Your task to perform on an android device: set the stopwatch Image 0: 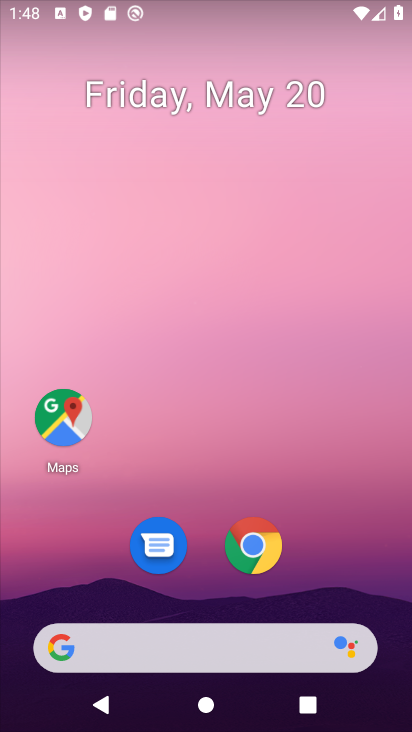
Step 0: drag from (286, 582) to (368, 22)
Your task to perform on an android device: set the stopwatch Image 1: 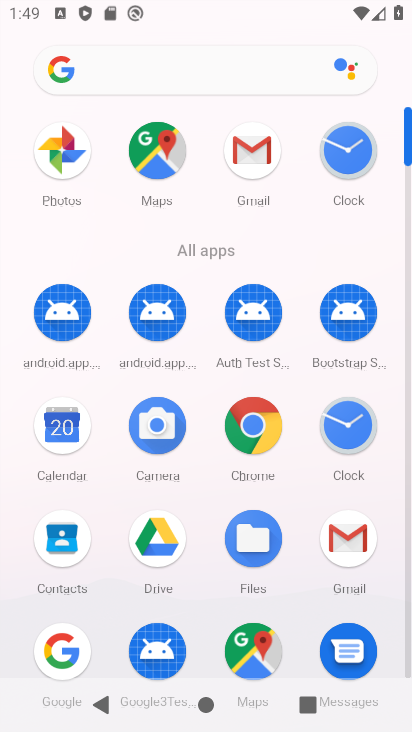
Step 1: click (354, 431)
Your task to perform on an android device: set the stopwatch Image 2: 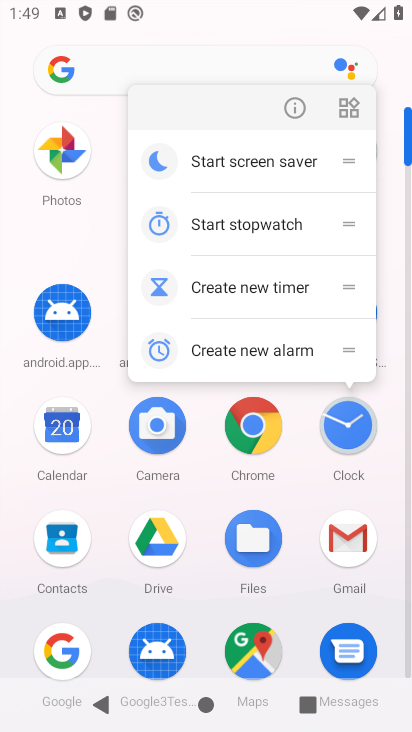
Step 2: click (354, 431)
Your task to perform on an android device: set the stopwatch Image 3: 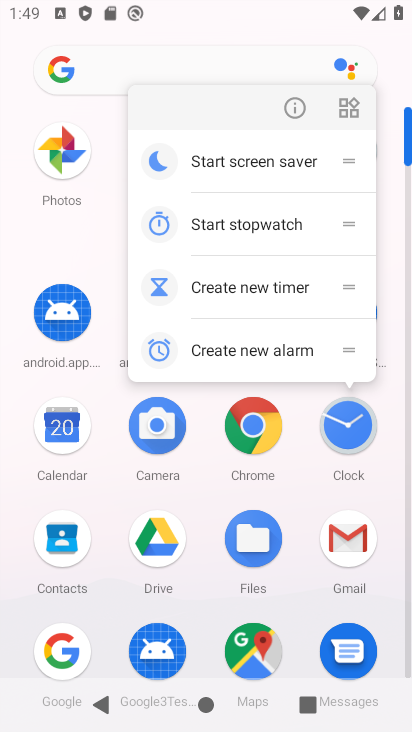
Step 3: click (354, 431)
Your task to perform on an android device: set the stopwatch Image 4: 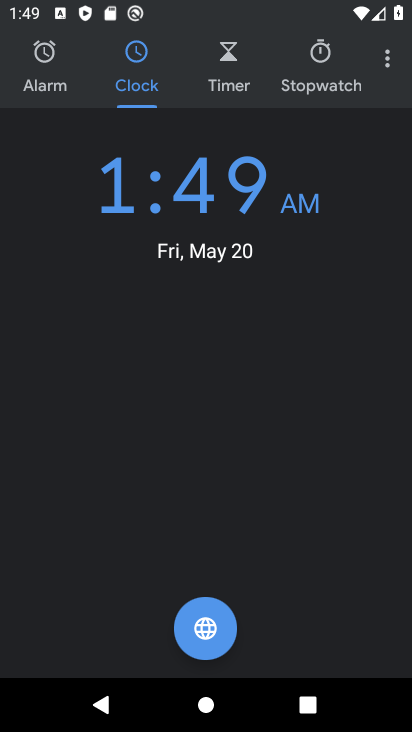
Step 4: click (318, 61)
Your task to perform on an android device: set the stopwatch Image 5: 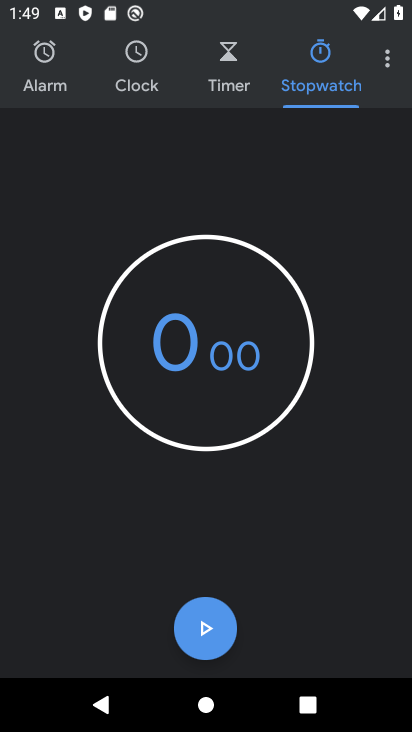
Step 5: task complete